Your task to perform on an android device: read, delete, or share a saved page in the chrome app Image 0: 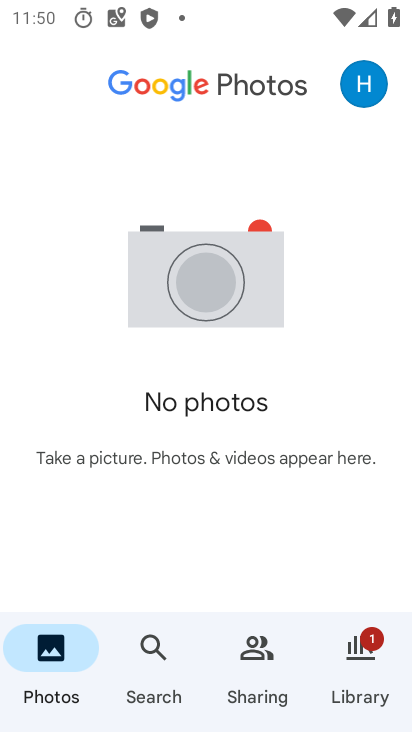
Step 0: press home button
Your task to perform on an android device: read, delete, or share a saved page in the chrome app Image 1: 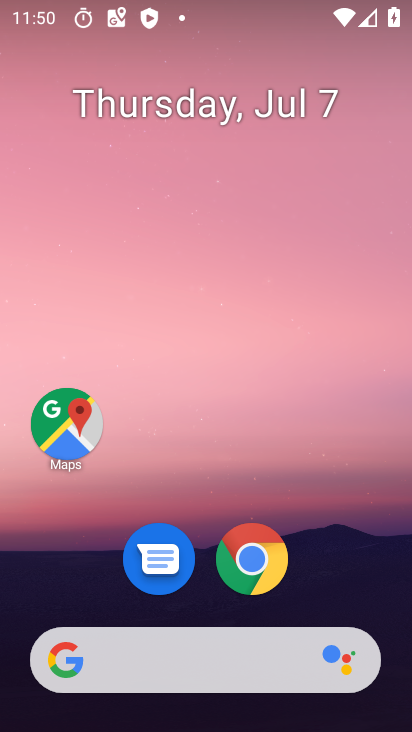
Step 1: drag from (354, 571) to (404, 144)
Your task to perform on an android device: read, delete, or share a saved page in the chrome app Image 2: 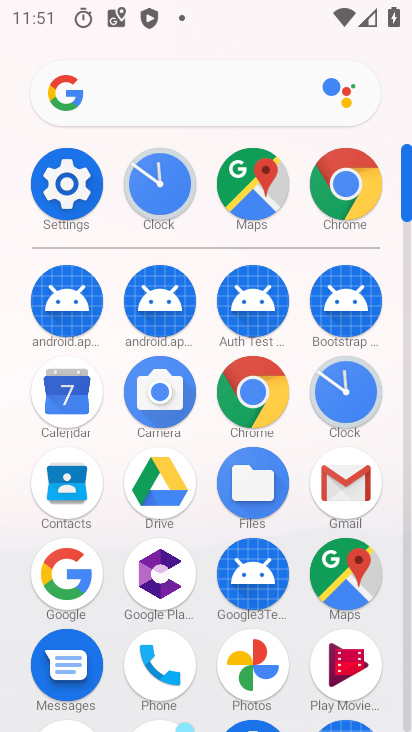
Step 2: click (273, 389)
Your task to perform on an android device: read, delete, or share a saved page in the chrome app Image 3: 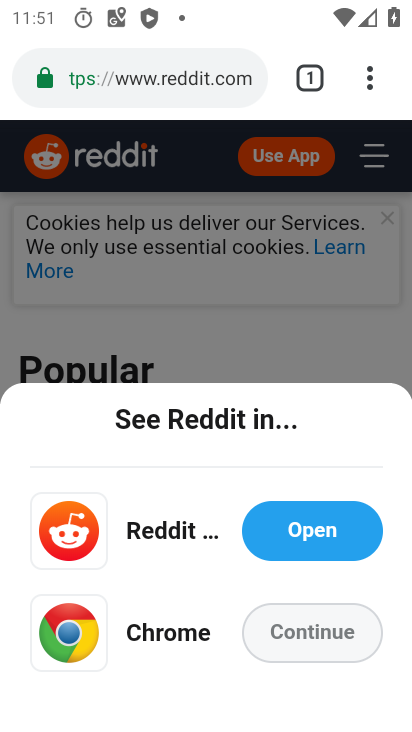
Step 3: click (370, 87)
Your task to perform on an android device: read, delete, or share a saved page in the chrome app Image 4: 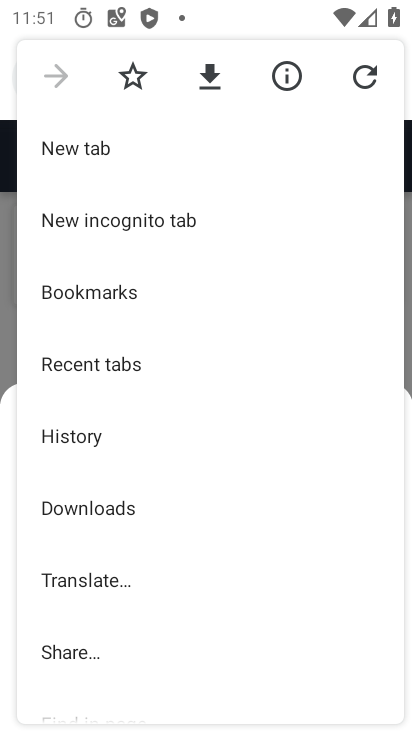
Step 4: click (143, 510)
Your task to perform on an android device: read, delete, or share a saved page in the chrome app Image 5: 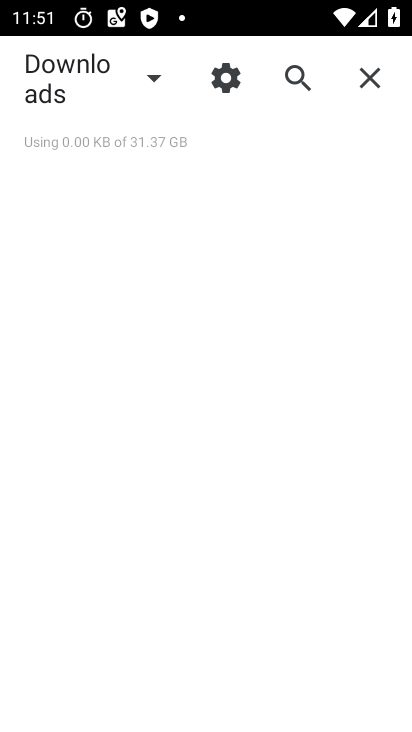
Step 5: click (149, 80)
Your task to perform on an android device: read, delete, or share a saved page in the chrome app Image 6: 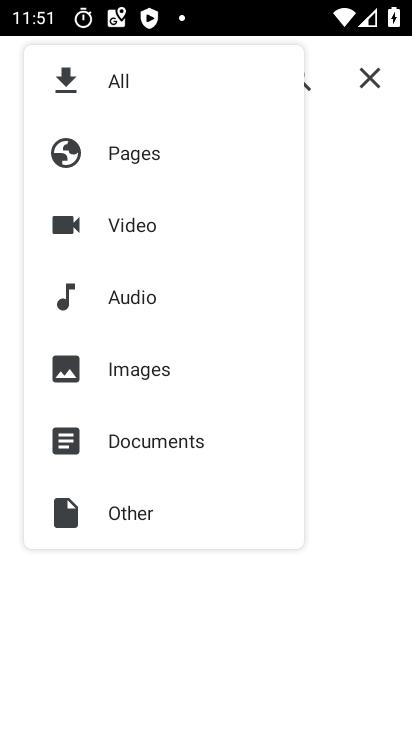
Step 6: click (151, 157)
Your task to perform on an android device: read, delete, or share a saved page in the chrome app Image 7: 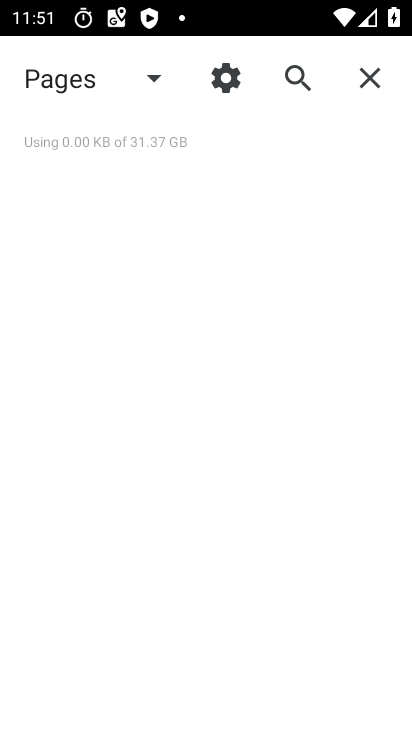
Step 7: task complete